Your task to perform on an android device: find which apps use the phone's location Image 0: 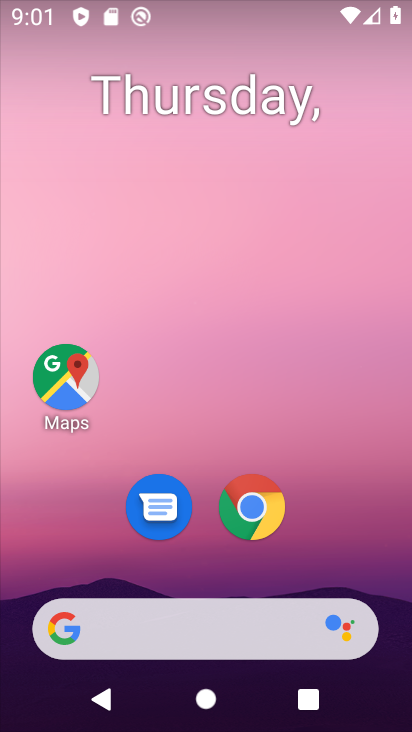
Step 0: drag from (201, 570) to (250, 68)
Your task to perform on an android device: find which apps use the phone's location Image 1: 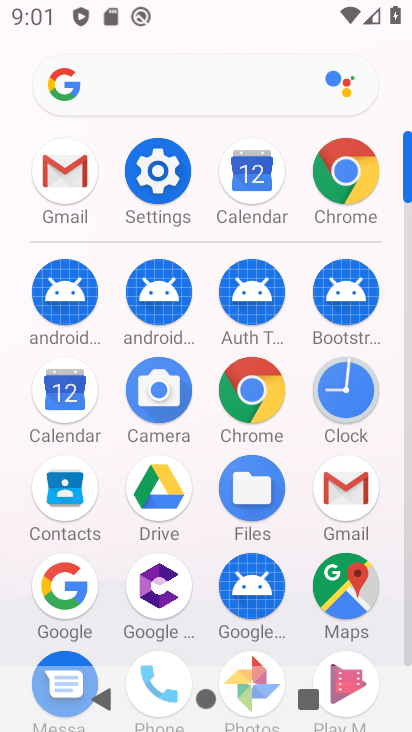
Step 1: click (164, 176)
Your task to perform on an android device: find which apps use the phone's location Image 2: 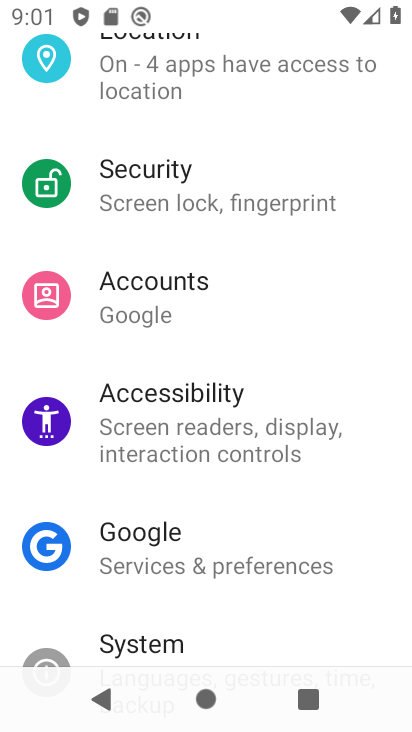
Step 2: drag from (188, 501) to (245, 226)
Your task to perform on an android device: find which apps use the phone's location Image 3: 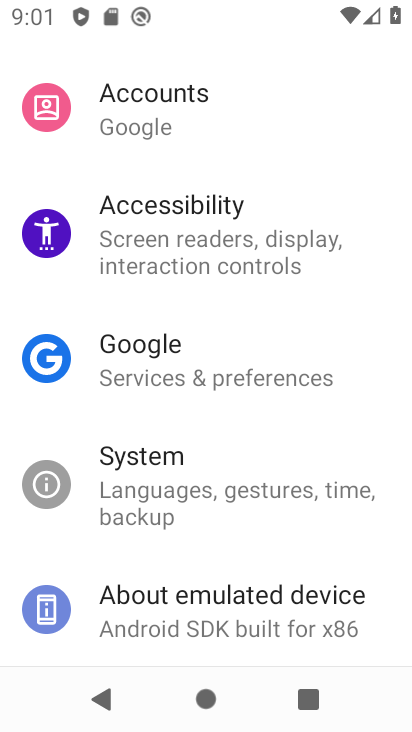
Step 3: drag from (223, 275) to (236, 614)
Your task to perform on an android device: find which apps use the phone's location Image 4: 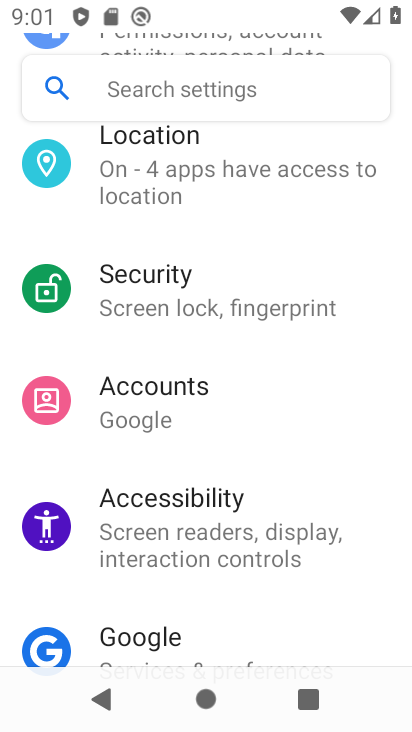
Step 4: click (176, 180)
Your task to perform on an android device: find which apps use the phone's location Image 5: 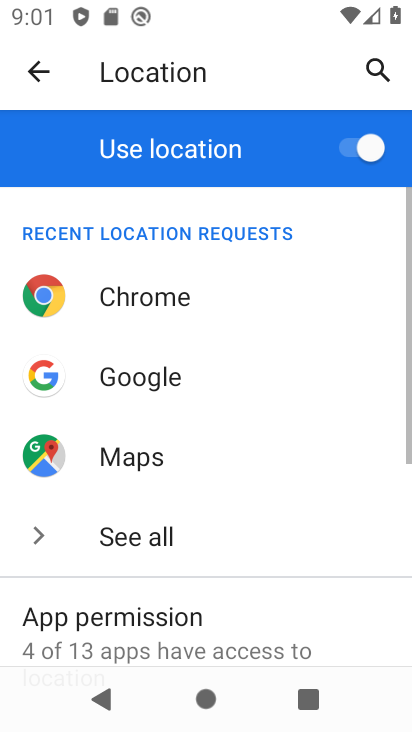
Step 5: click (144, 622)
Your task to perform on an android device: find which apps use the phone's location Image 6: 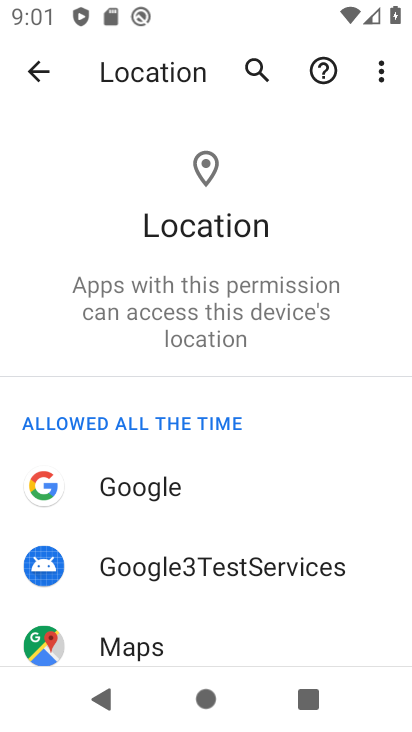
Step 6: task complete